Your task to perform on an android device: change alarm snooze length Image 0: 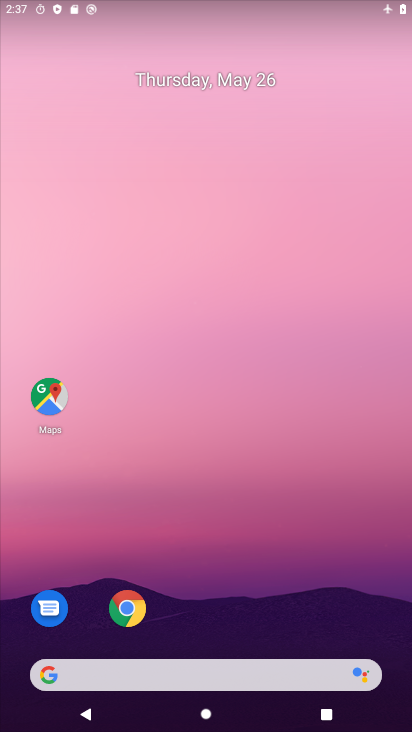
Step 0: drag from (270, 617) to (347, 43)
Your task to perform on an android device: change alarm snooze length Image 1: 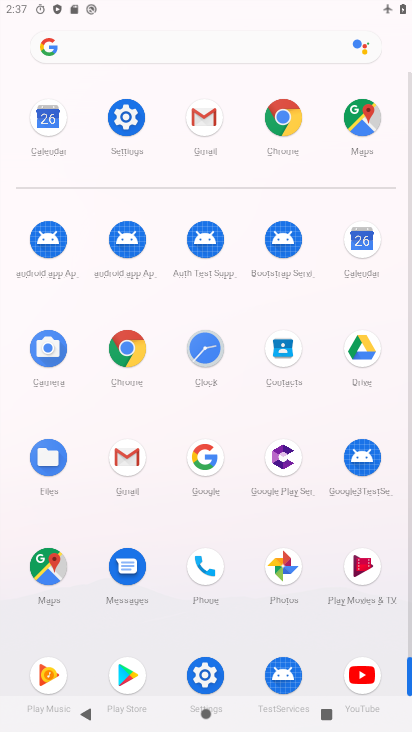
Step 1: click (209, 337)
Your task to perform on an android device: change alarm snooze length Image 2: 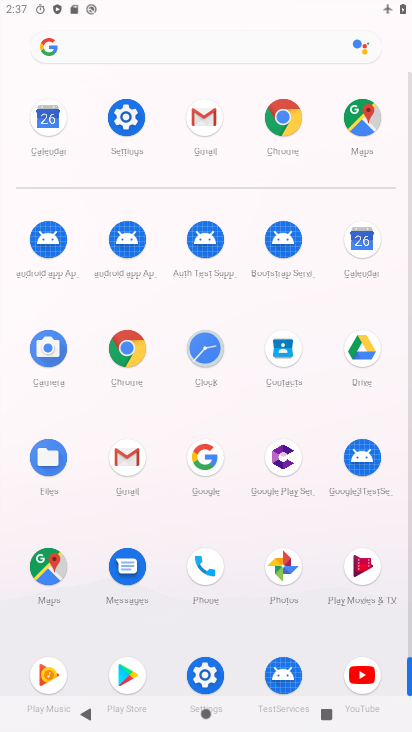
Step 2: click (209, 337)
Your task to perform on an android device: change alarm snooze length Image 3: 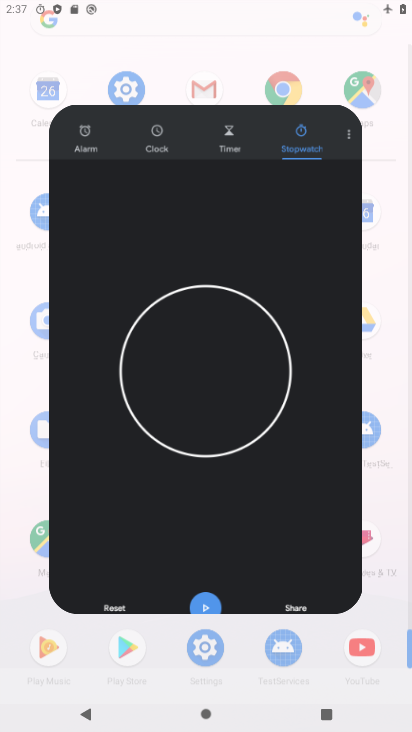
Step 3: click (208, 339)
Your task to perform on an android device: change alarm snooze length Image 4: 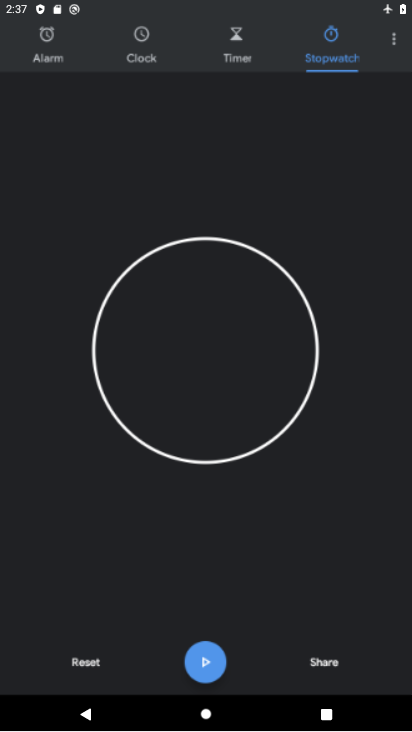
Step 4: click (207, 345)
Your task to perform on an android device: change alarm snooze length Image 5: 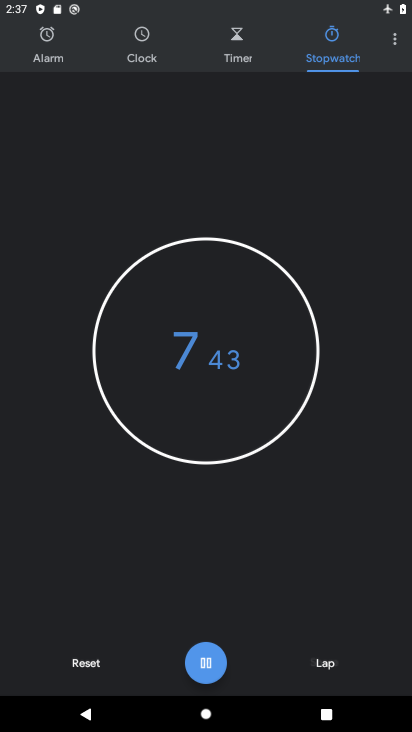
Step 5: click (207, 350)
Your task to perform on an android device: change alarm snooze length Image 6: 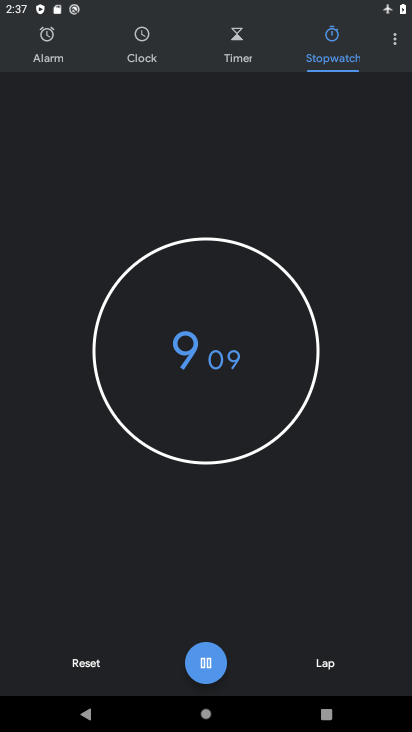
Step 6: click (205, 656)
Your task to perform on an android device: change alarm snooze length Image 7: 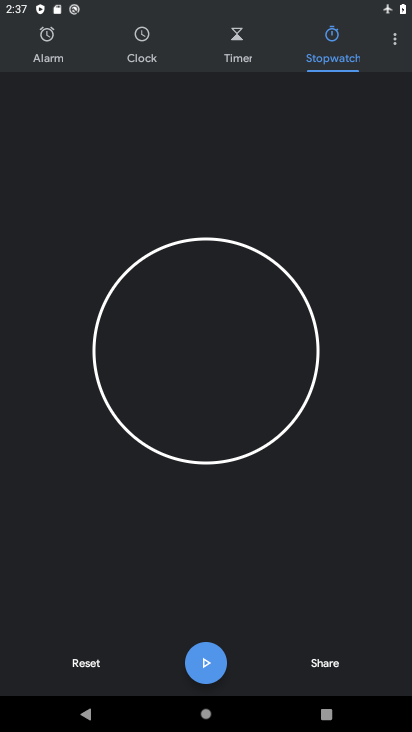
Step 7: click (391, 39)
Your task to perform on an android device: change alarm snooze length Image 8: 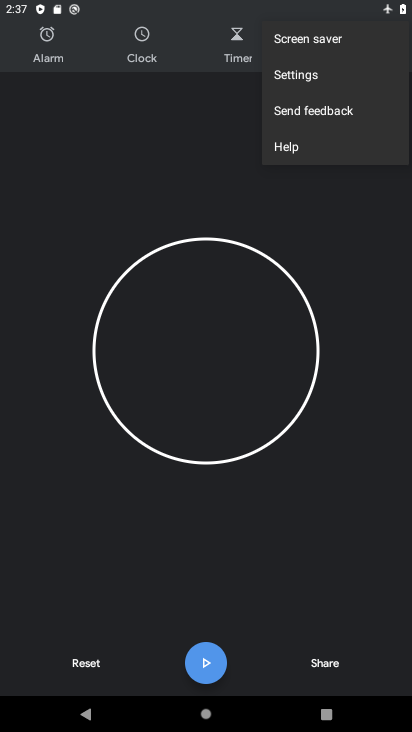
Step 8: click (301, 75)
Your task to perform on an android device: change alarm snooze length Image 9: 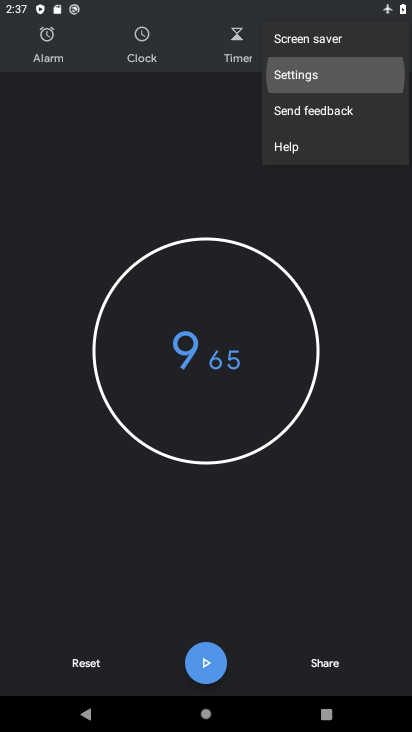
Step 9: click (301, 75)
Your task to perform on an android device: change alarm snooze length Image 10: 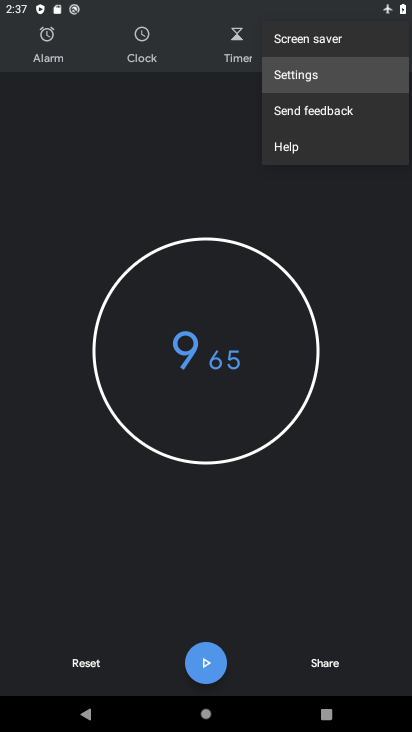
Step 10: click (301, 75)
Your task to perform on an android device: change alarm snooze length Image 11: 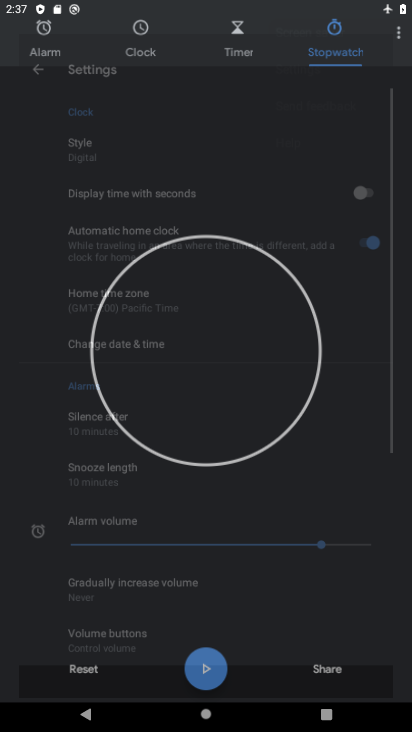
Step 11: click (300, 75)
Your task to perform on an android device: change alarm snooze length Image 12: 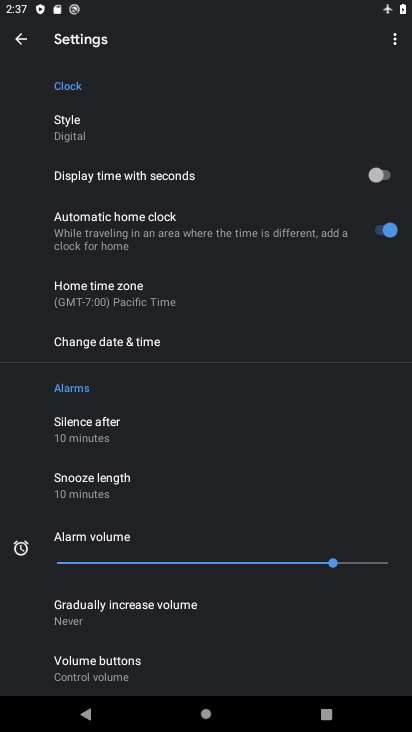
Step 12: click (78, 475)
Your task to perform on an android device: change alarm snooze length Image 13: 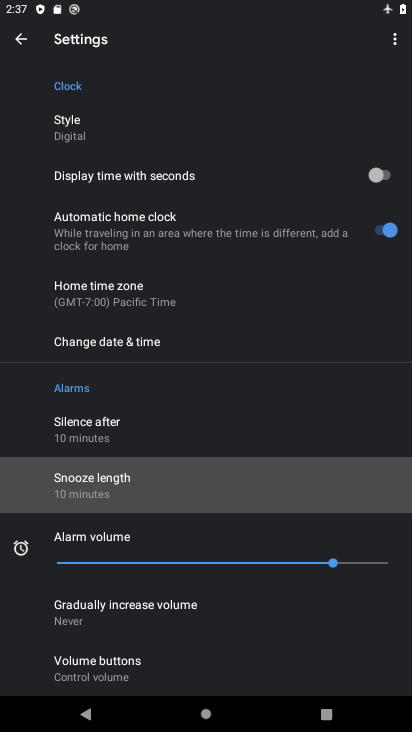
Step 13: click (78, 475)
Your task to perform on an android device: change alarm snooze length Image 14: 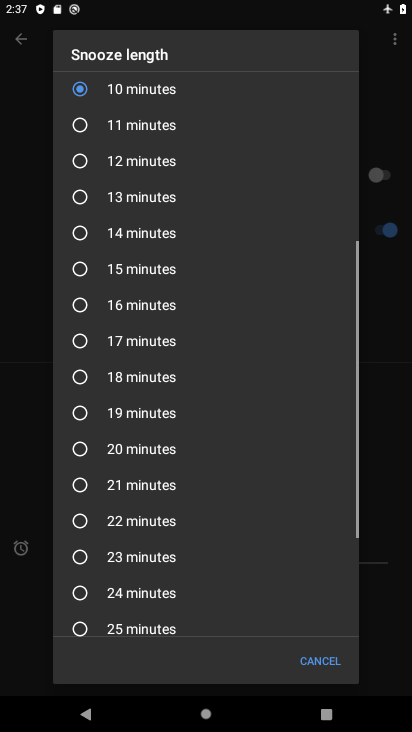
Step 14: click (78, 475)
Your task to perform on an android device: change alarm snooze length Image 15: 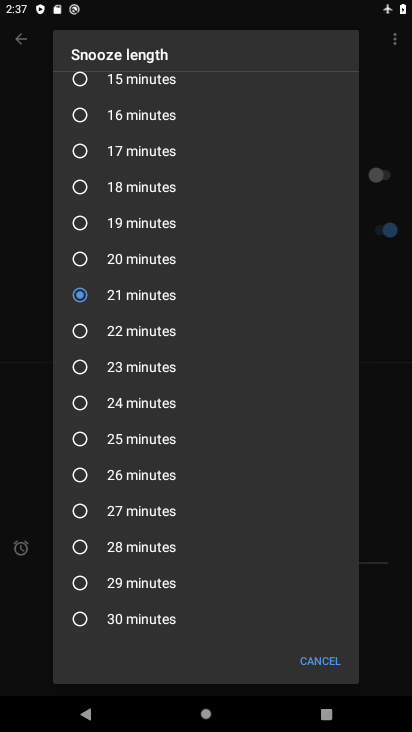
Step 15: click (81, 386)
Your task to perform on an android device: change alarm snooze length Image 16: 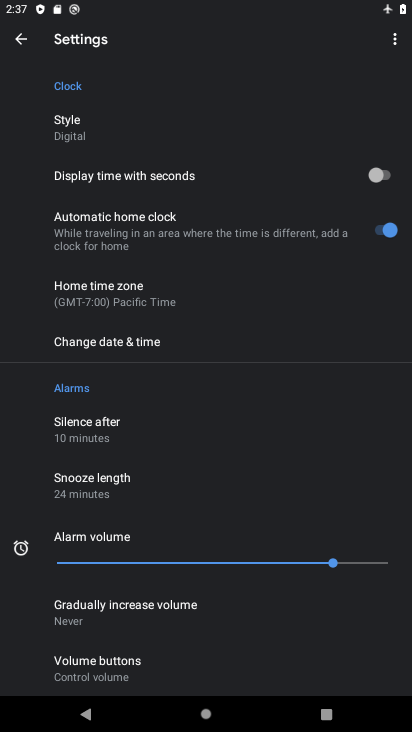
Step 16: task complete